Your task to perform on an android device: change text size in settings app Image 0: 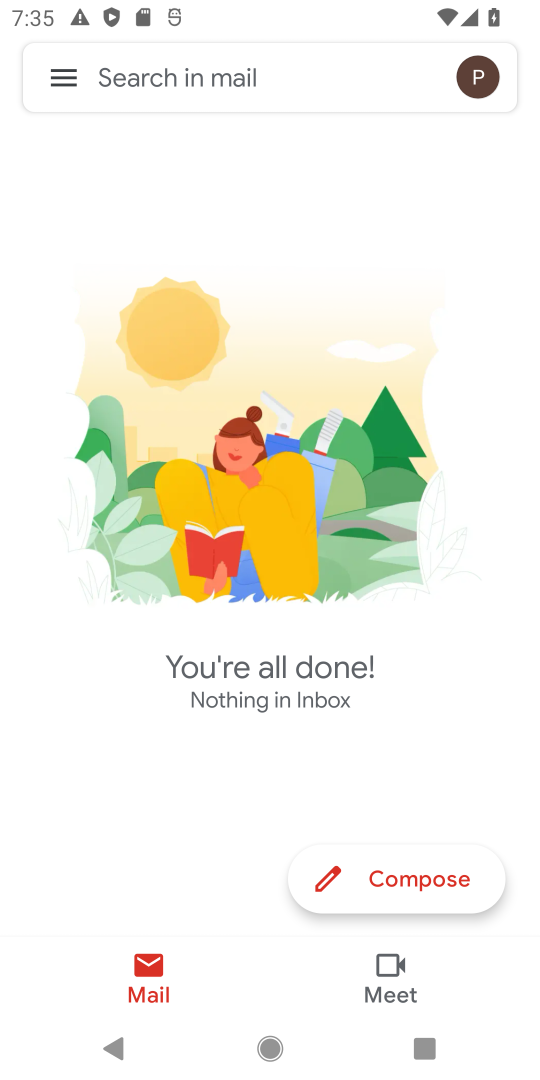
Step 0: press home button
Your task to perform on an android device: change text size in settings app Image 1: 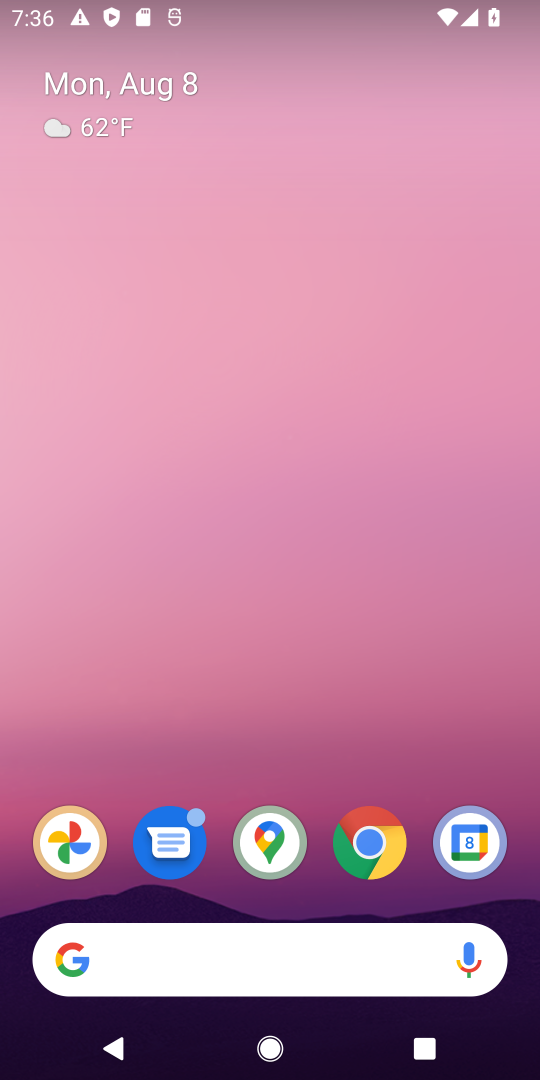
Step 1: drag from (497, 589) to (424, 177)
Your task to perform on an android device: change text size in settings app Image 2: 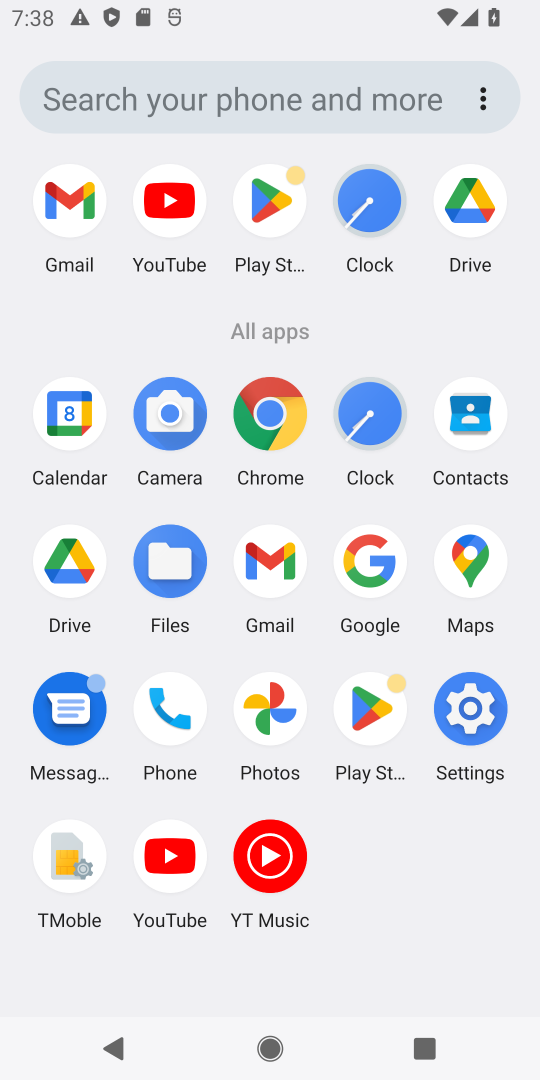
Step 2: click (476, 708)
Your task to perform on an android device: change text size in settings app Image 3: 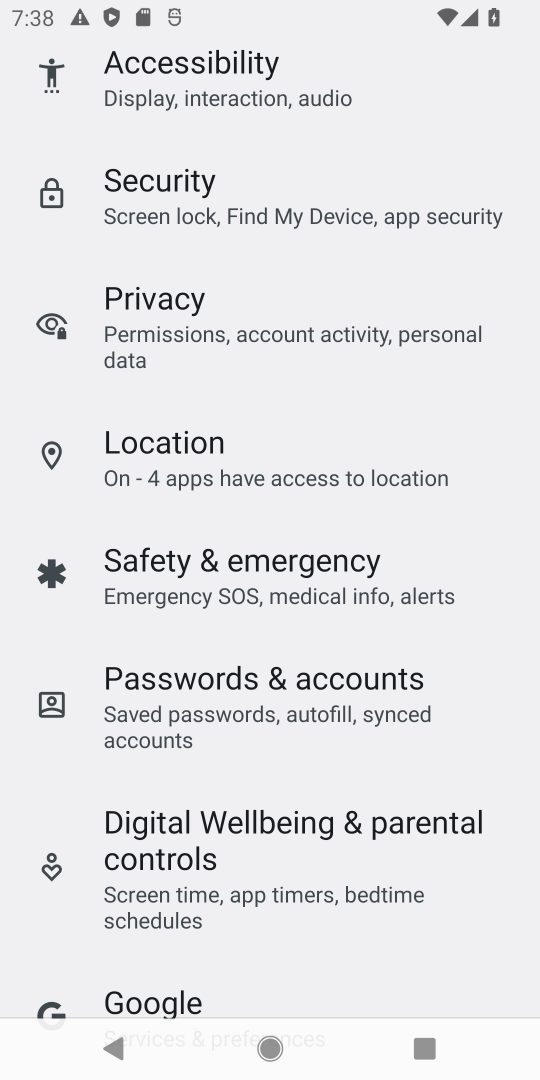
Step 3: drag from (438, 241) to (429, 856)
Your task to perform on an android device: change text size in settings app Image 4: 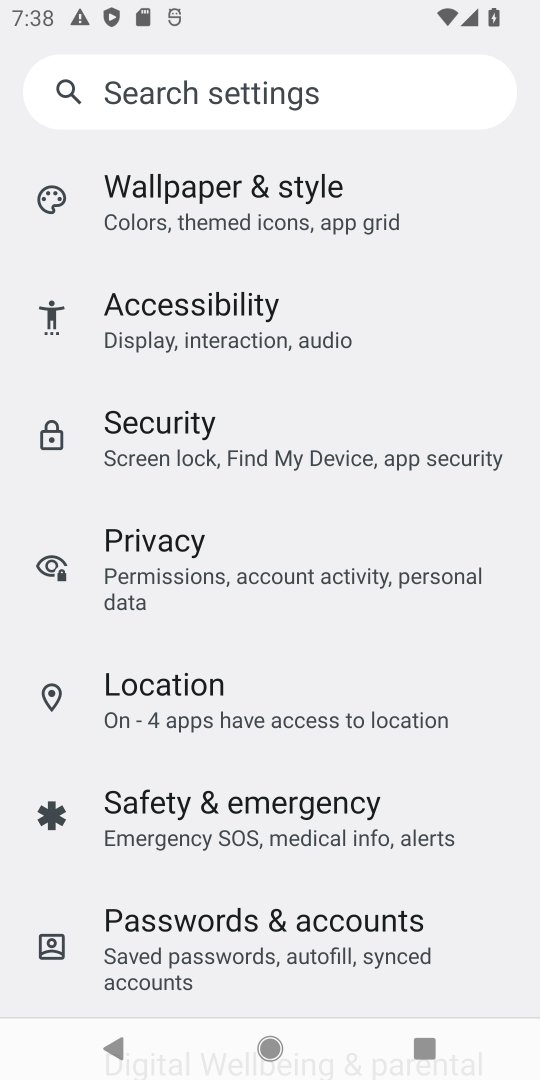
Step 4: drag from (436, 184) to (415, 729)
Your task to perform on an android device: change text size in settings app Image 5: 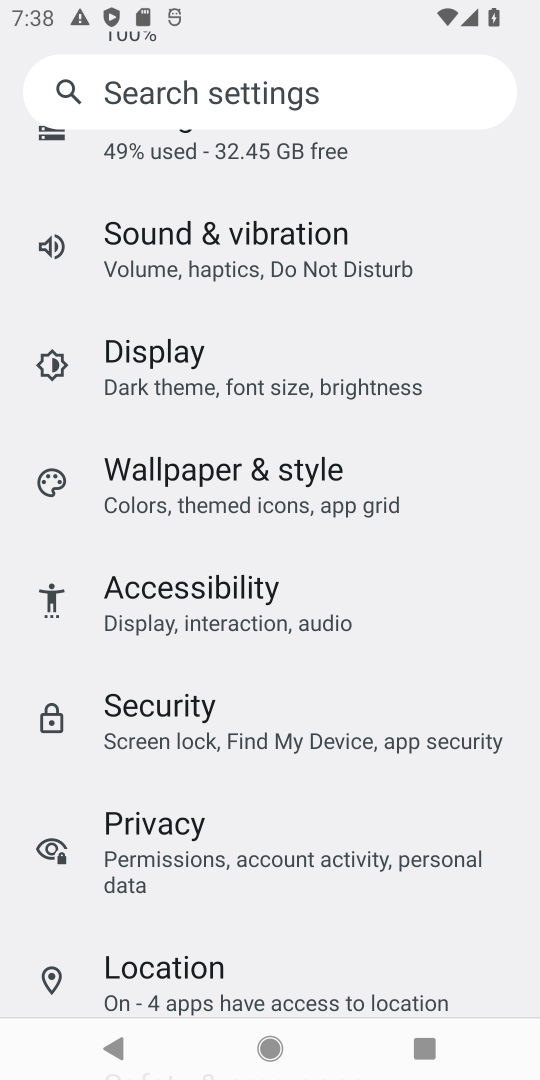
Step 5: drag from (429, 391) to (391, 875)
Your task to perform on an android device: change text size in settings app Image 6: 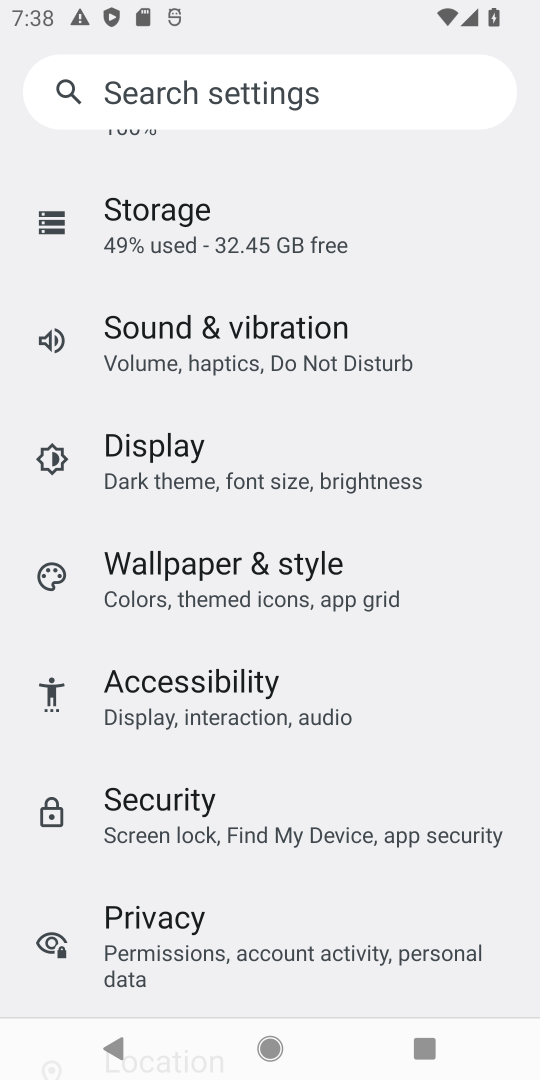
Step 6: click (167, 435)
Your task to perform on an android device: change text size in settings app Image 7: 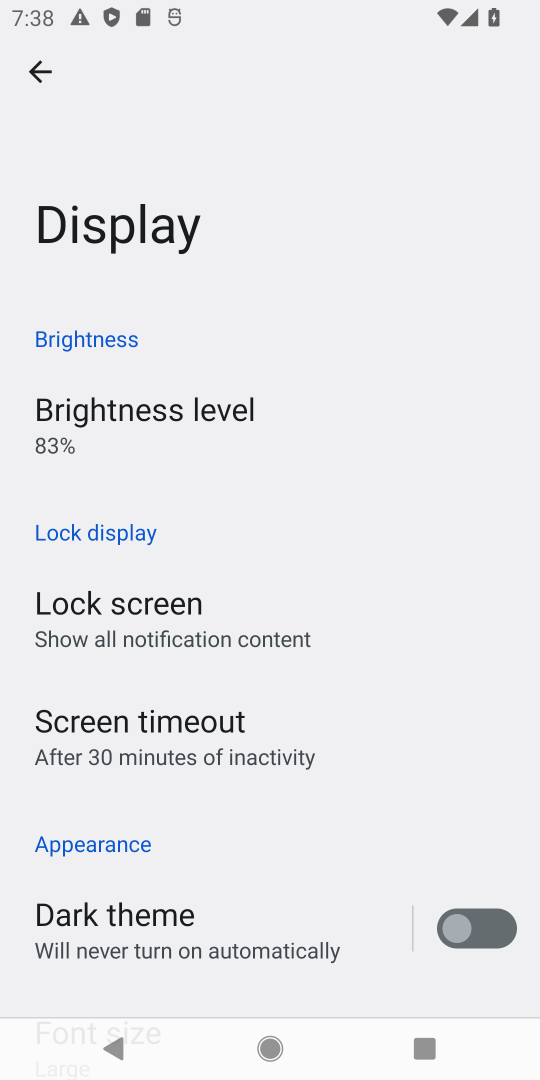
Step 7: drag from (337, 878) to (355, 330)
Your task to perform on an android device: change text size in settings app Image 8: 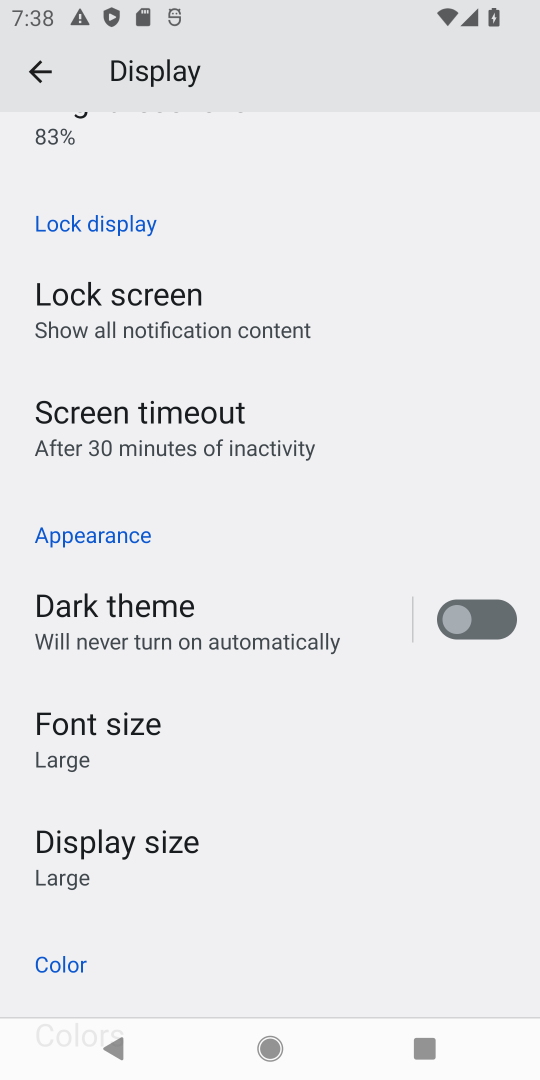
Step 8: click (113, 837)
Your task to perform on an android device: change text size in settings app Image 9: 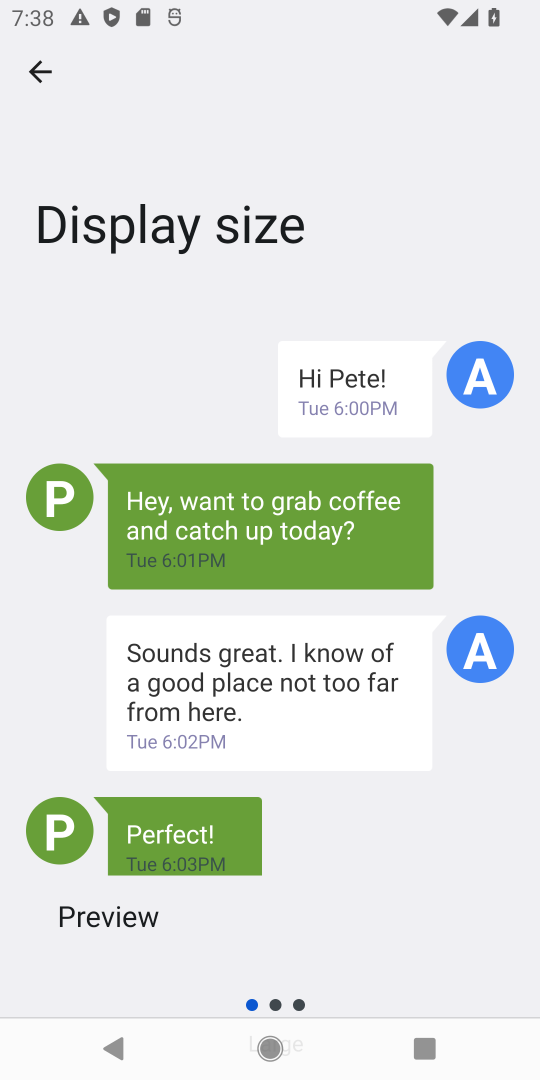
Step 9: click (50, 71)
Your task to perform on an android device: change text size in settings app Image 10: 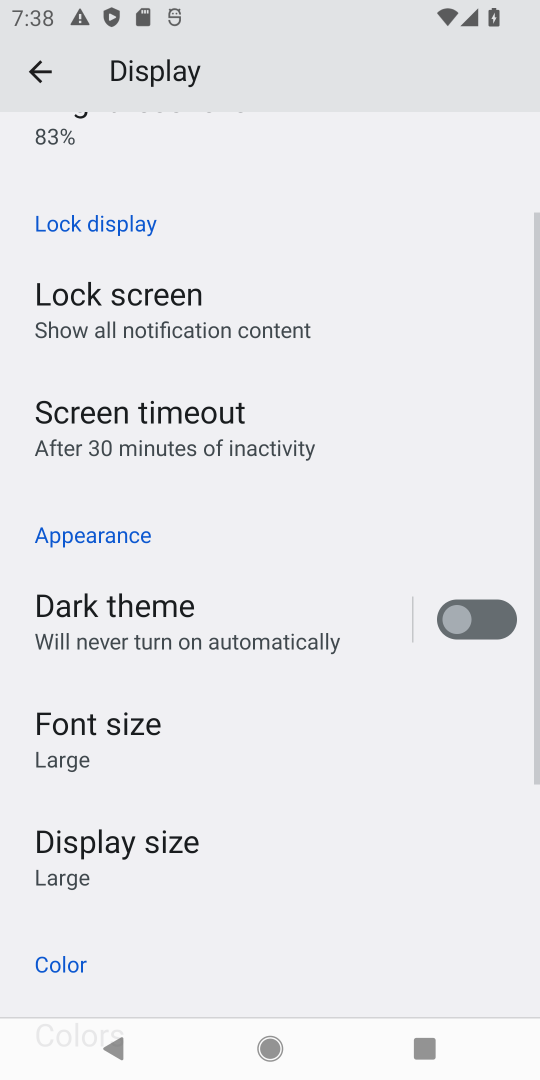
Step 10: click (73, 751)
Your task to perform on an android device: change text size in settings app Image 11: 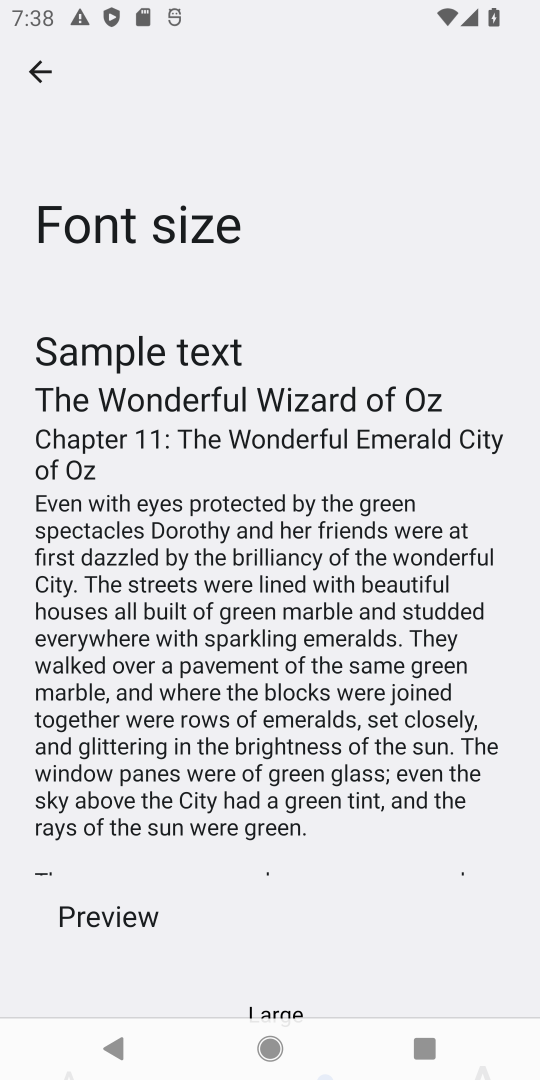
Step 11: drag from (294, 911) to (296, 315)
Your task to perform on an android device: change text size in settings app Image 12: 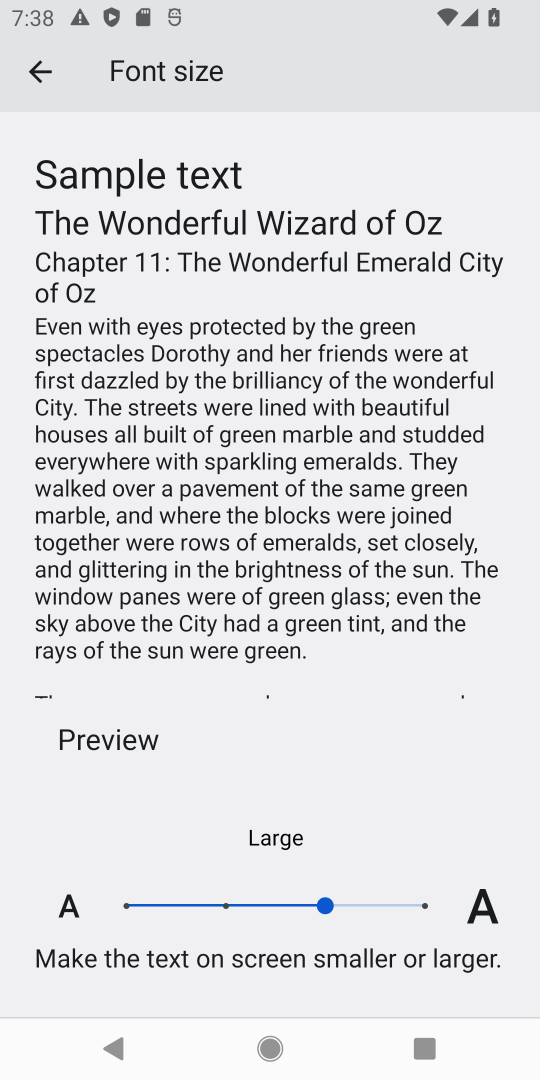
Step 12: click (225, 905)
Your task to perform on an android device: change text size in settings app Image 13: 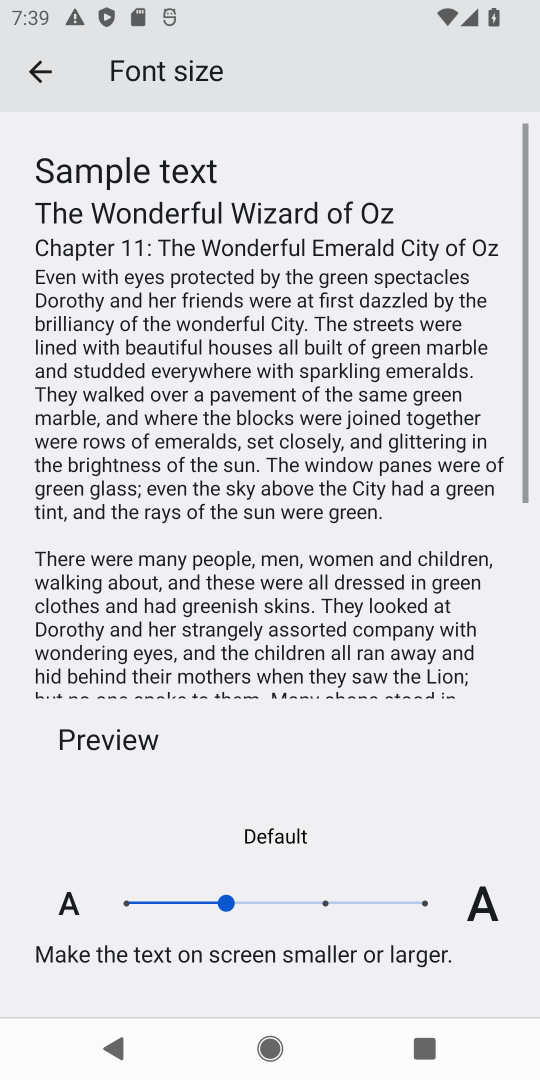
Step 13: task complete